Your task to perform on an android device: Open CNN.com Image 0: 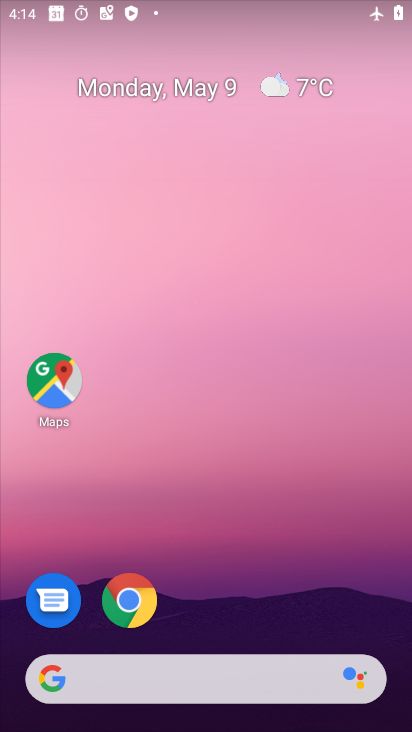
Step 0: press home button
Your task to perform on an android device: Open CNN.com Image 1: 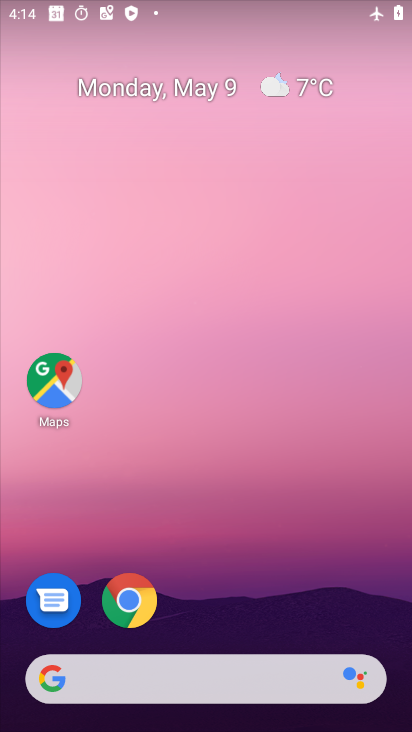
Step 1: click (127, 603)
Your task to perform on an android device: Open CNN.com Image 2: 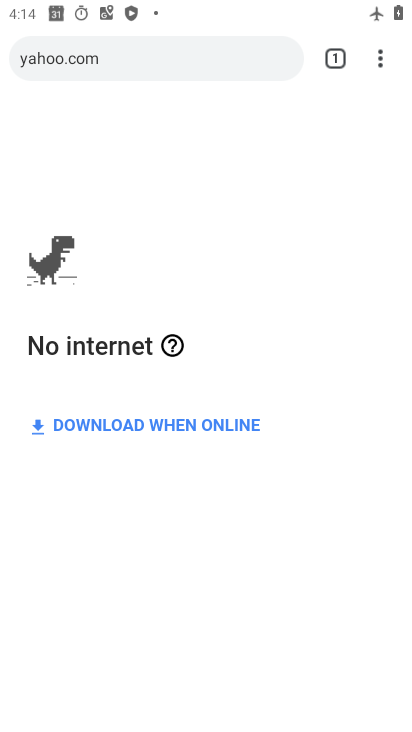
Step 2: click (183, 59)
Your task to perform on an android device: Open CNN.com Image 3: 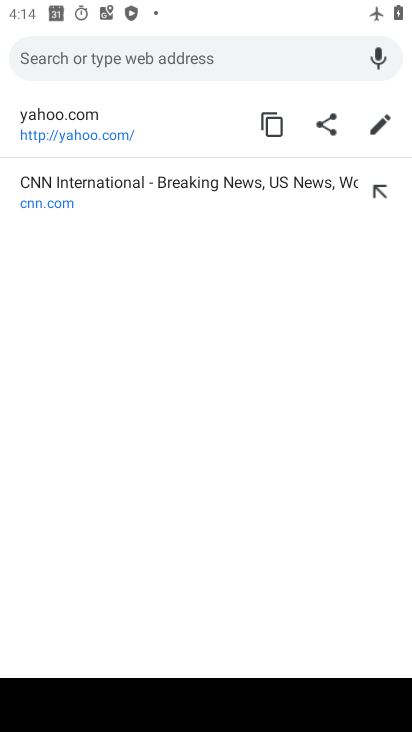
Step 3: click (77, 191)
Your task to perform on an android device: Open CNN.com Image 4: 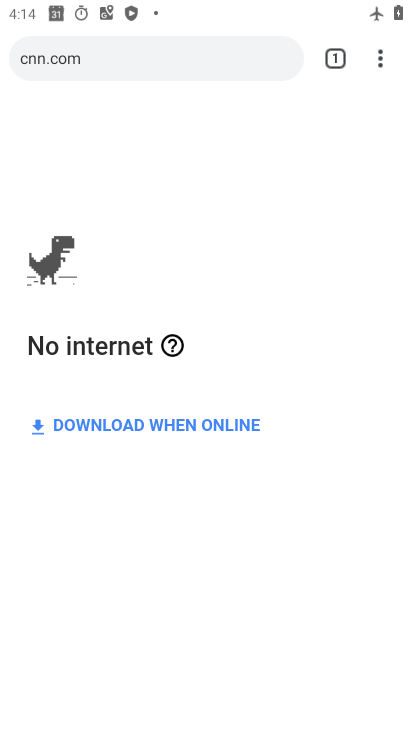
Step 4: task complete